Your task to perform on an android device: empty trash in google photos Image 0: 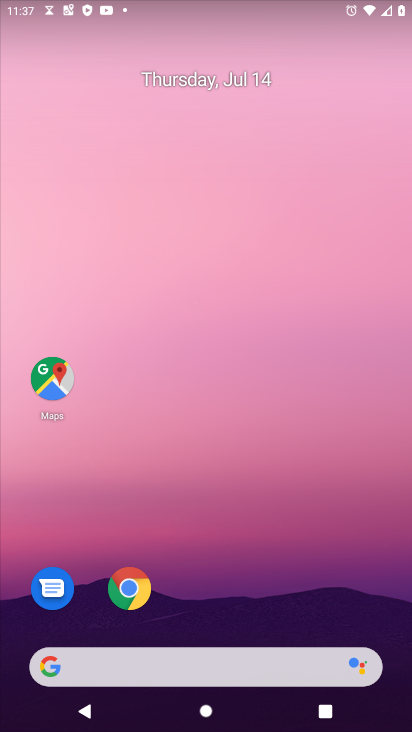
Step 0: press home button
Your task to perform on an android device: empty trash in google photos Image 1: 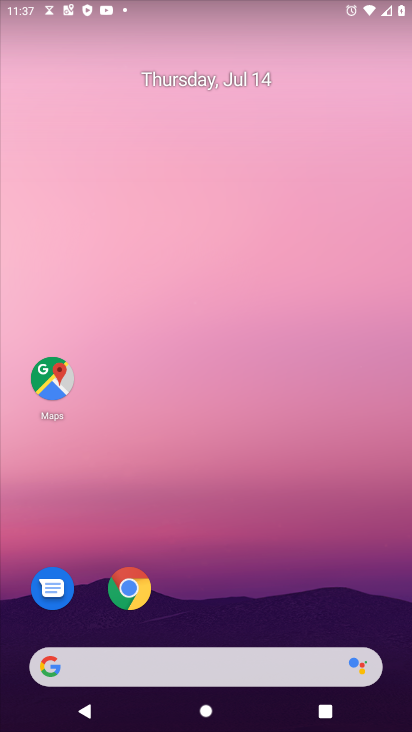
Step 1: drag from (215, 643) to (346, 173)
Your task to perform on an android device: empty trash in google photos Image 2: 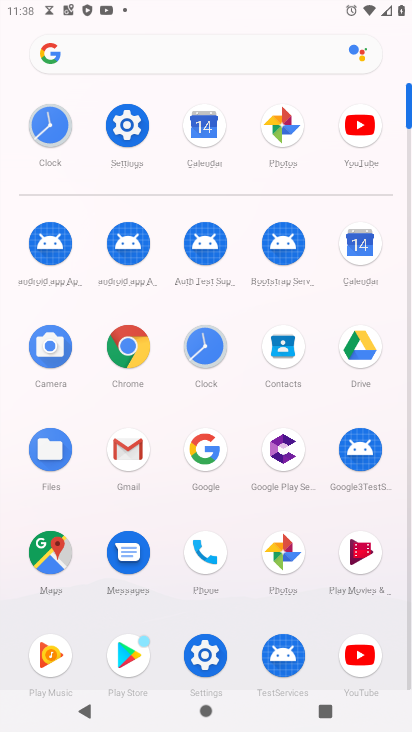
Step 2: click (290, 552)
Your task to perform on an android device: empty trash in google photos Image 3: 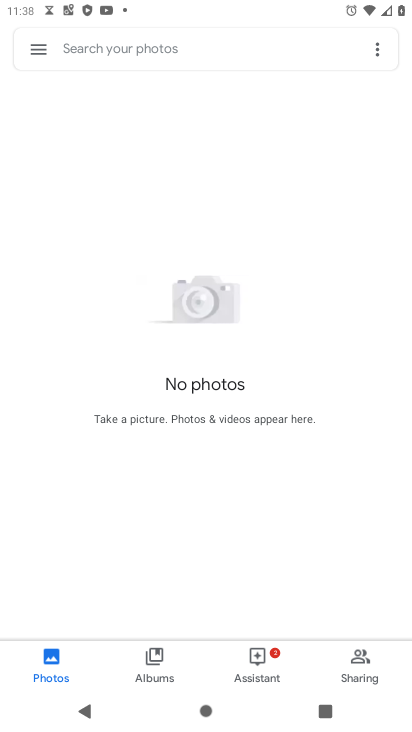
Step 3: click (33, 43)
Your task to perform on an android device: empty trash in google photos Image 4: 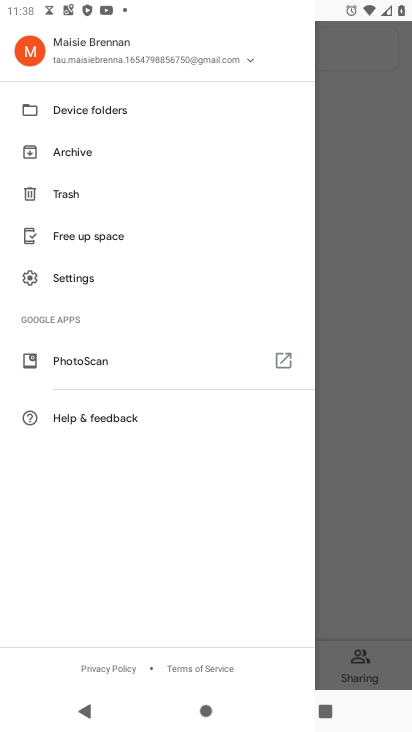
Step 4: click (67, 196)
Your task to perform on an android device: empty trash in google photos Image 5: 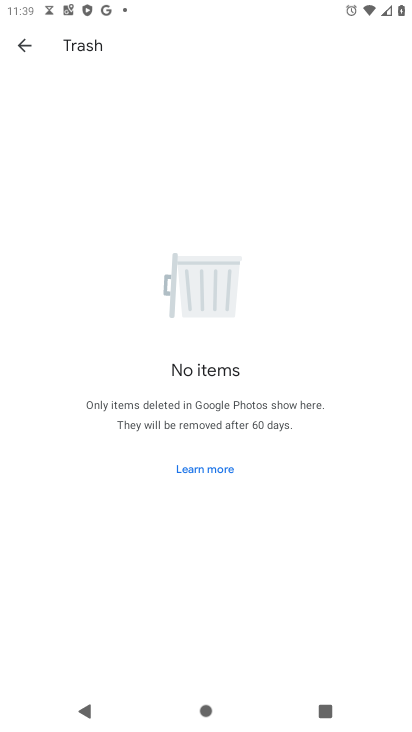
Step 5: task complete